Your task to perform on an android device: set an alarm Image 0: 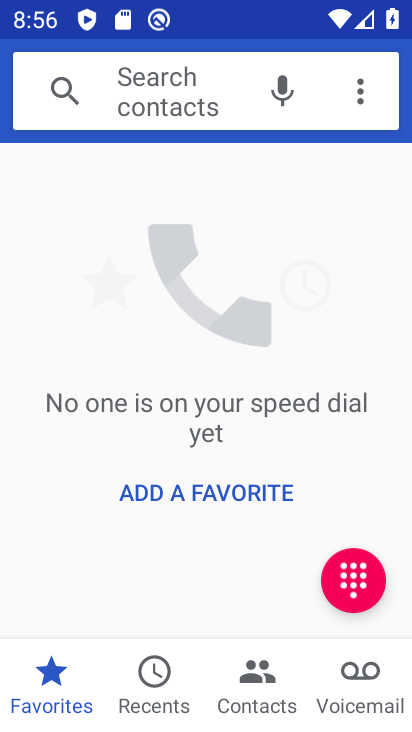
Step 0: press home button
Your task to perform on an android device: set an alarm Image 1: 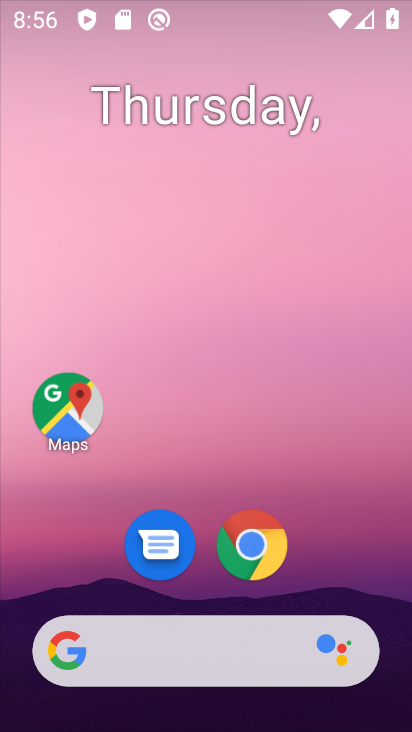
Step 1: drag from (382, 649) to (283, 61)
Your task to perform on an android device: set an alarm Image 2: 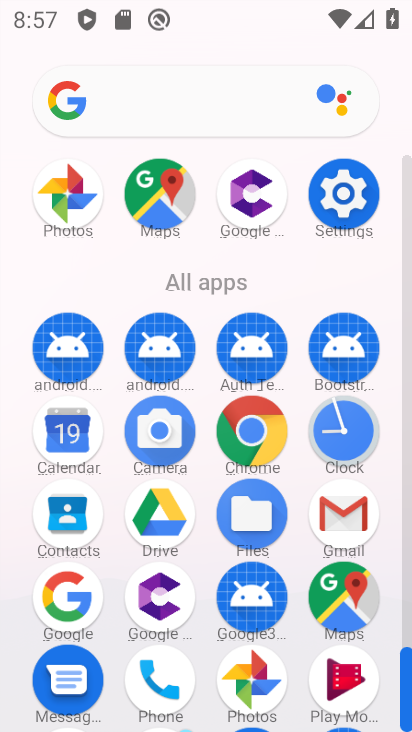
Step 2: click (353, 448)
Your task to perform on an android device: set an alarm Image 3: 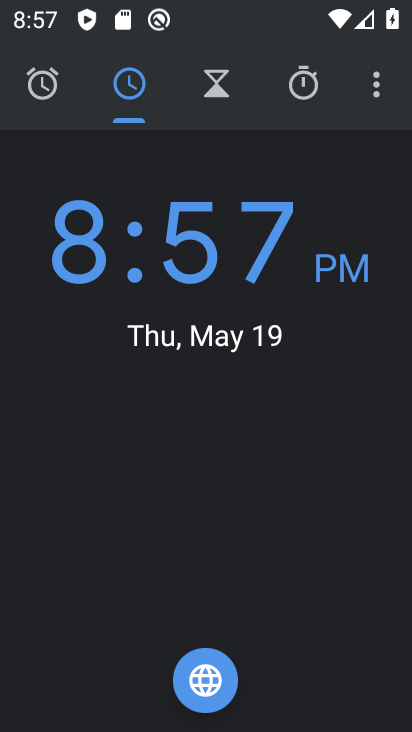
Step 3: click (55, 97)
Your task to perform on an android device: set an alarm Image 4: 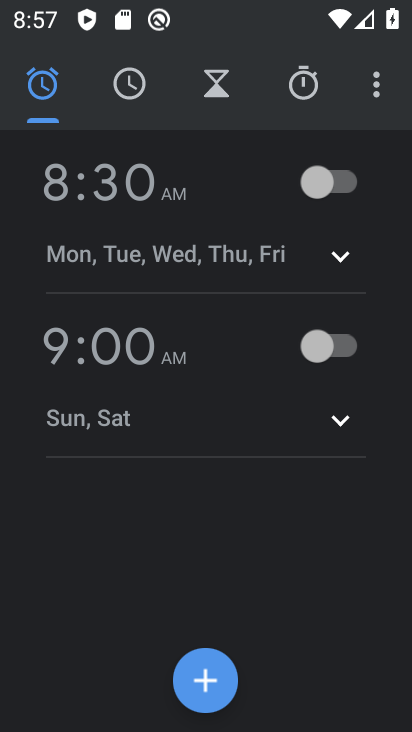
Step 4: click (331, 192)
Your task to perform on an android device: set an alarm Image 5: 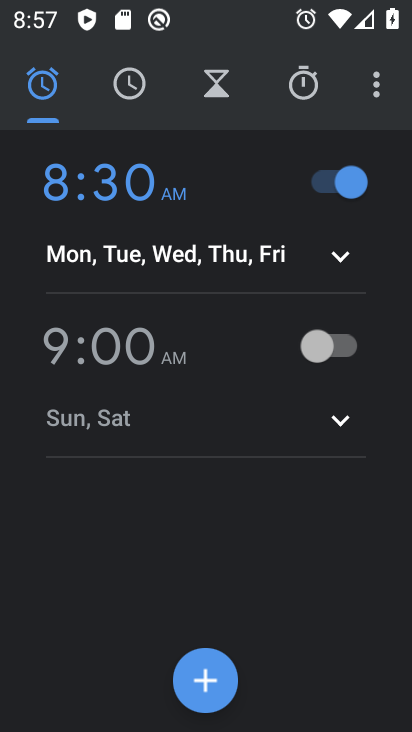
Step 5: task complete